Your task to perform on an android device: Open calendar and show me the third week of next month Image 0: 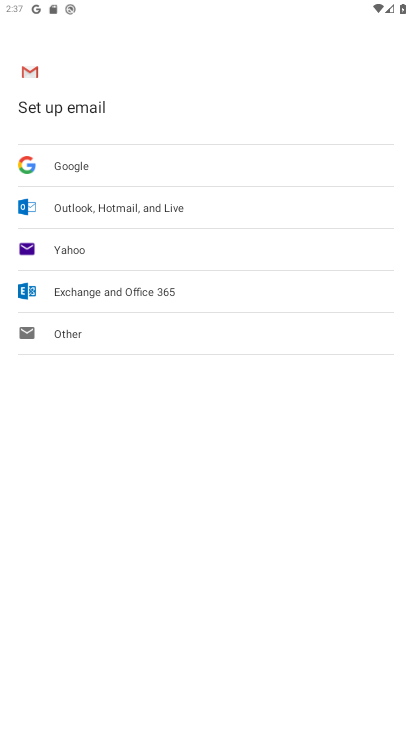
Step 0: press home button
Your task to perform on an android device: Open calendar and show me the third week of next month Image 1: 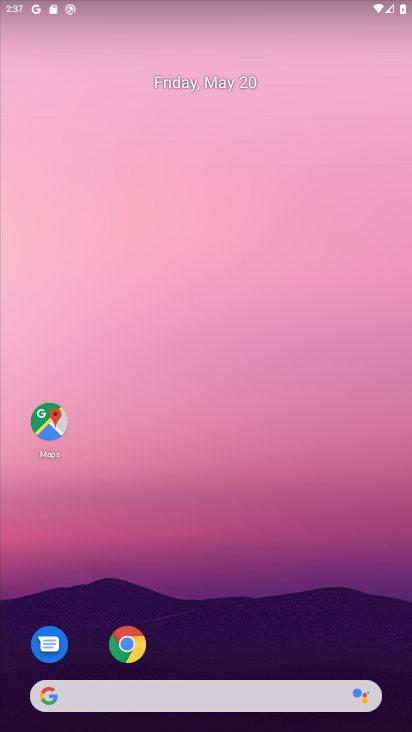
Step 1: drag from (186, 463) to (140, 150)
Your task to perform on an android device: Open calendar and show me the third week of next month Image 2: 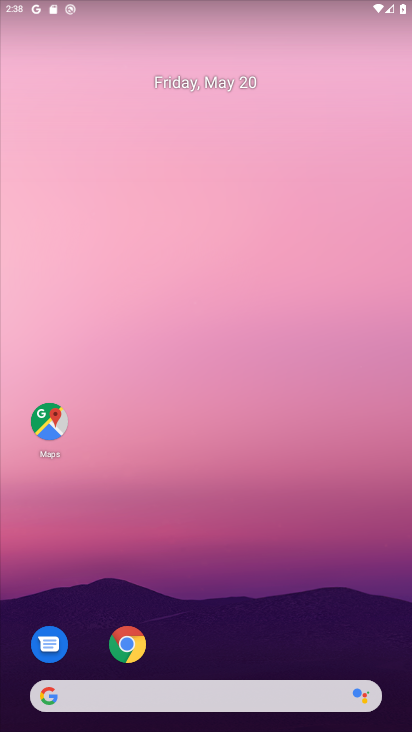
Step 2: drag from (229, 634) to (205, 122)
Your task to perform on an android device: Open calendar and show me the third week of next month Image 3: 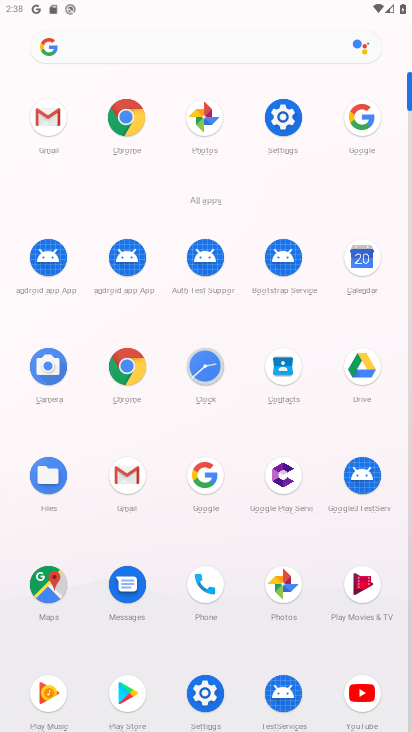
Step 3: click (368, 268)
Your task to perform on an android device: Open calendar and show me the third week of next month Image 4: 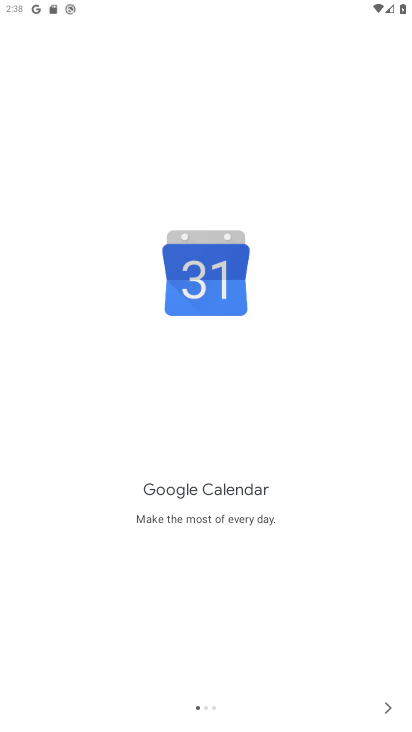
Step 4: click (380, 714)
Your task to perform on an android device: Open calendar and show me the third week of next month Image 5: 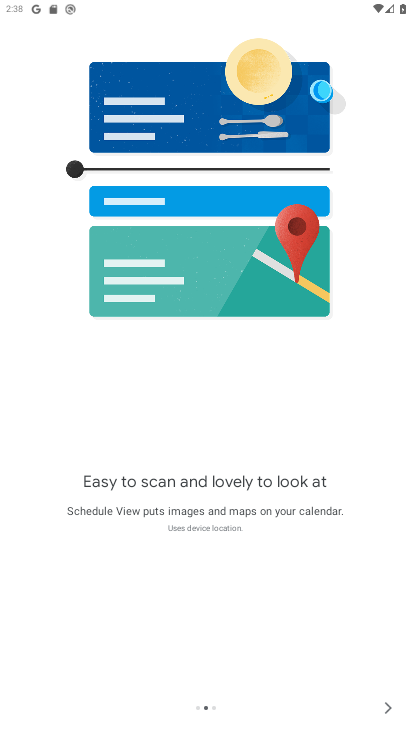
Step 5: click (383, 715)
Your task to perform on an android device: Open calendar and show me the third week of next month Image 6: 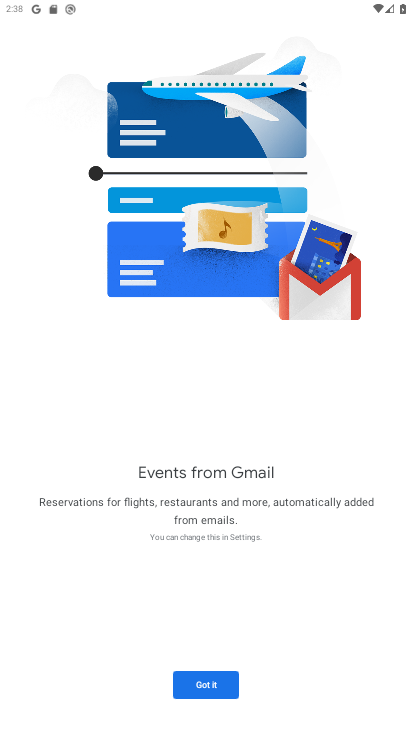
Step 6: click (194, 688)
Your task to perform on an android device: Open calendar and show me the third week of next month Image 7: 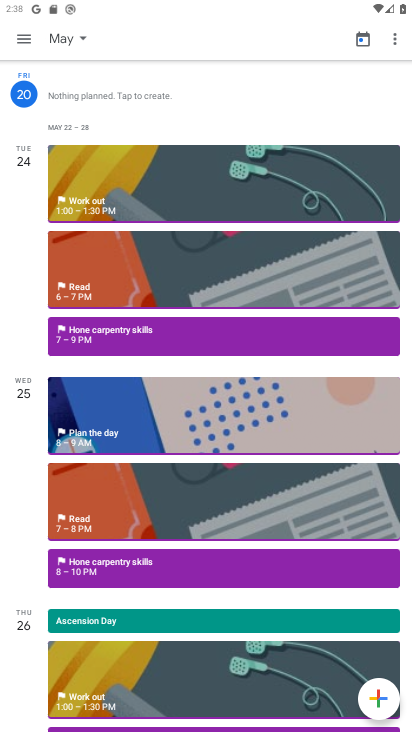
Step 7: click (62, 39)
Your task to perform on an android device: Open calendar and show me the third week of next month Image 8: 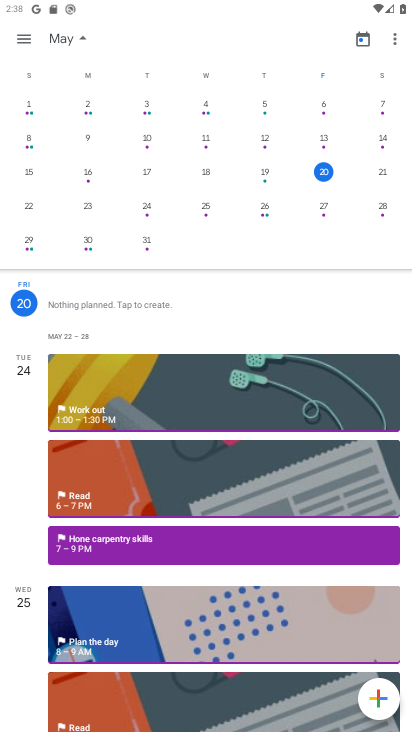
Step 8: drag from (347, 213) to (9, 171)
Your task to perform on an android device: Open calendar and show me the third week of next month Image 9: 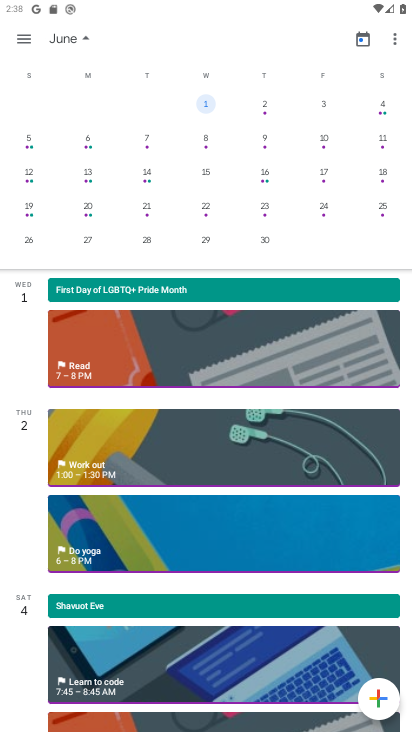
Step 9: click (30, 177)
Your task to perform on an android device: Open calendar and show me the third week of next month Image 10: 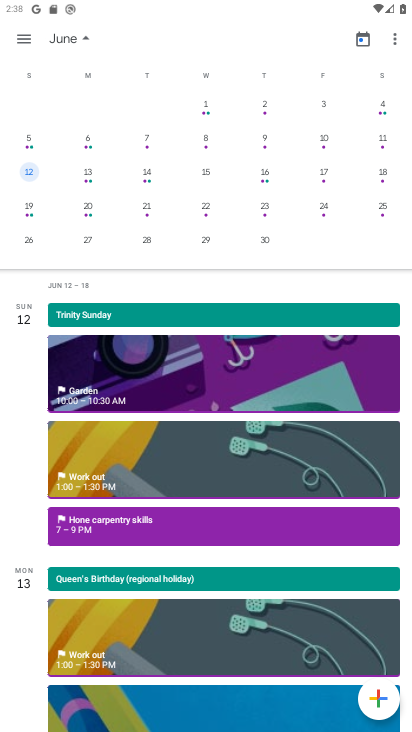
Step 10: click (89, 180)
Your task to perform on an android device: Open calendar and show me the third week of next month Image 11: 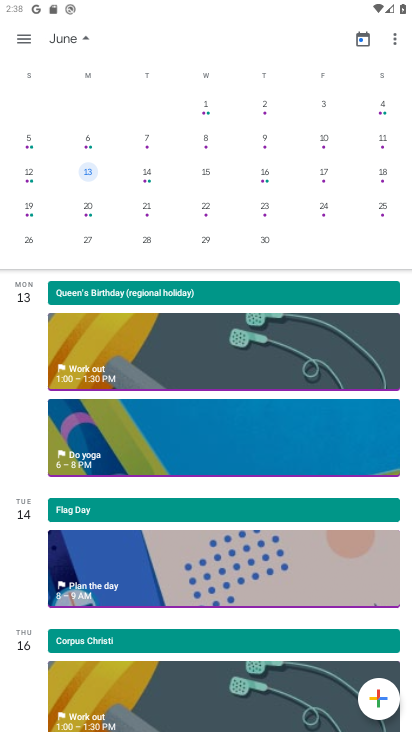
Step 11: click (141, 176)
Your task to perform on an android device: Open calendar and show me the third week of next month Image 12: 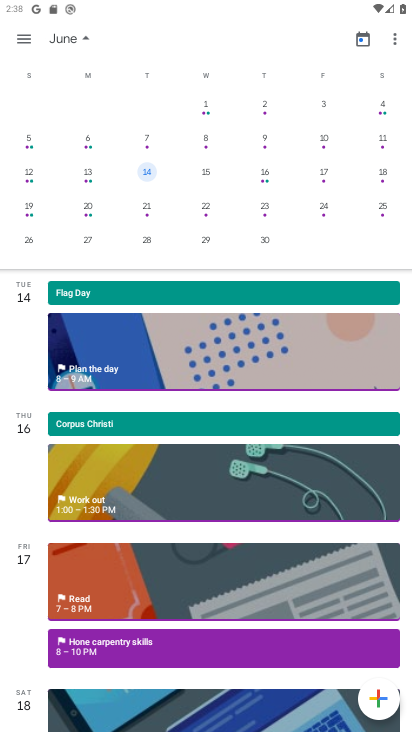
Step 12: click (204, 177)
Your task to perform on an android device: Open calendar and show me the third week of next month Image 13: 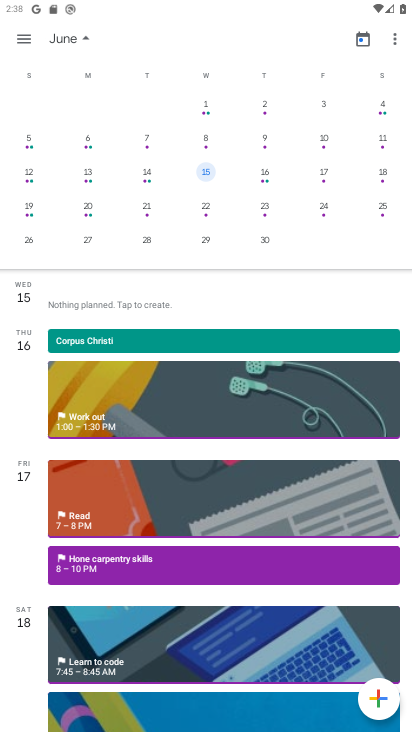
Step 13: click (263, 174)
Your task to perform on an android device: Open calendar and show me the third week of next month Image 14: 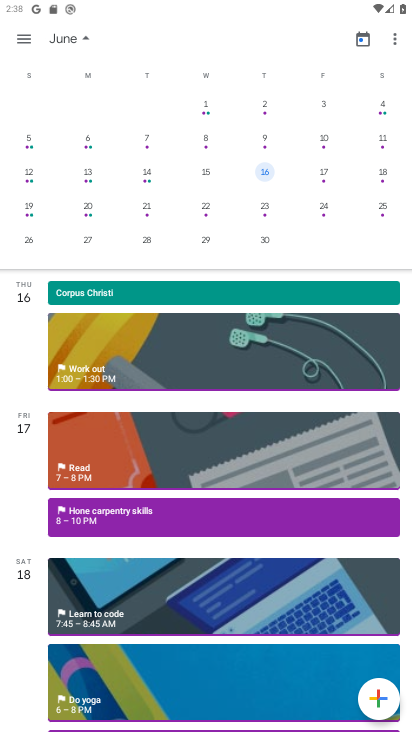
Step 14: click (323, 172)
Your task to perform on an android device: Open calendar and show me the third week of next month Image 15: 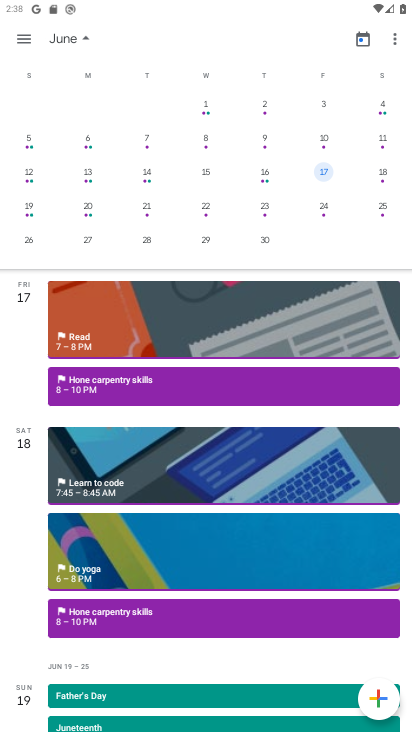
Step 15: click (386, 180)
Your task to perform on an android device: Open calendar and show me the third week of next month Image 16: 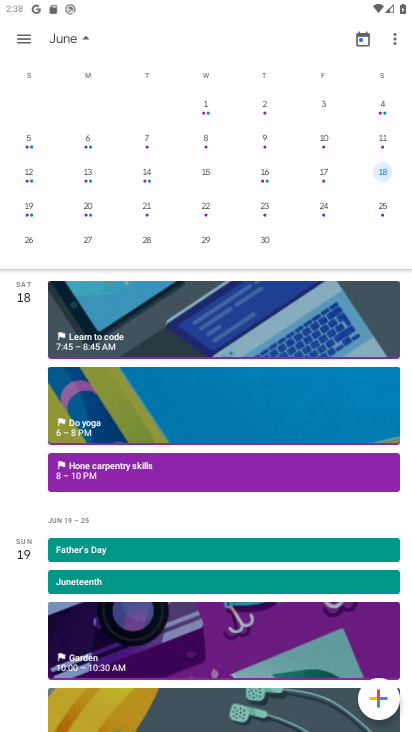
Step 16: task complete